Your task to perform on an android device: turn off javascript in the chrome app Image 0: 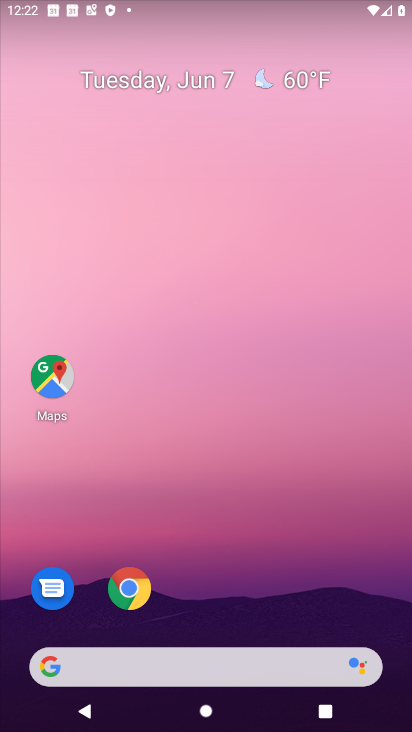
Step 0: click (138, 595)
Your task to perform on an android device: turn off javascript in the chrome app Image 1: 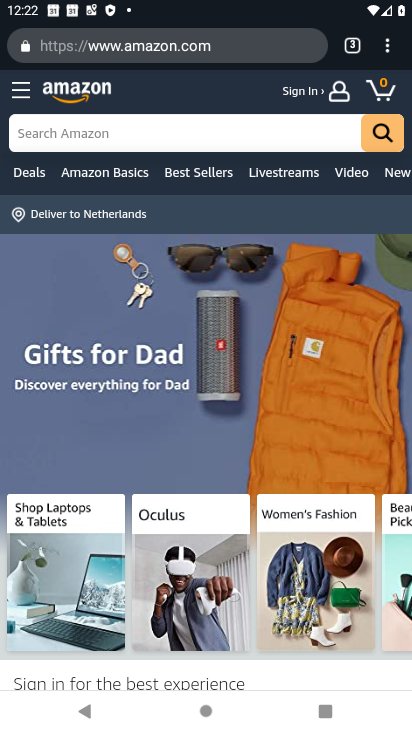
Step 1: click (383, 37)
Your task to perform on an android device: turn off javascript in the chrome app Image 2: 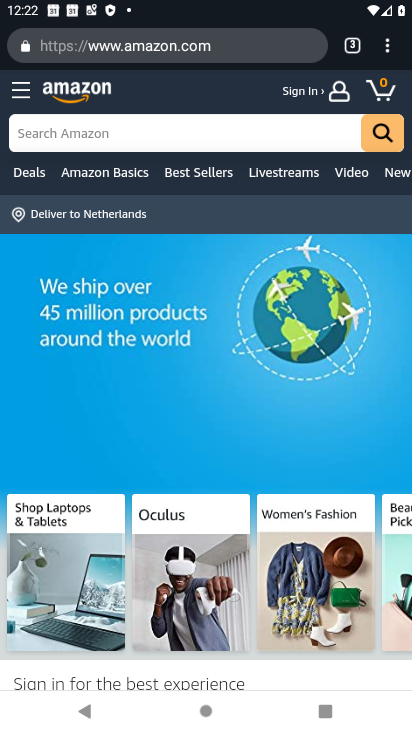
Step 2: click (386, 51)
Your task to perform on an android device: turn off javascript in the chrome app Image 3: 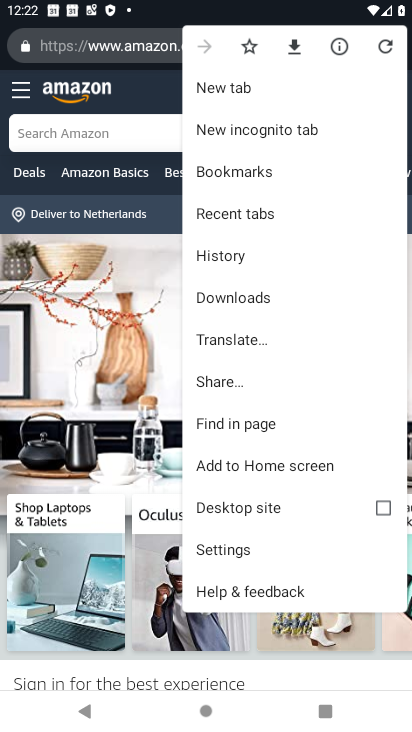
Step 3: click (265, 547)
Your task to perform on an android device: turn off javascript in the chrome app Image 4: 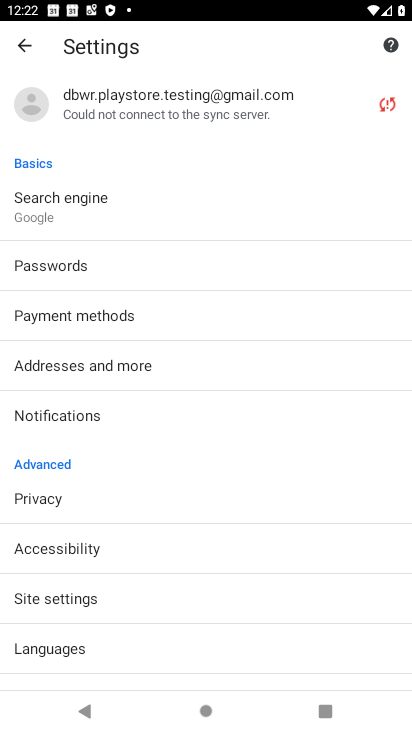
Step 4: click (67, 599)
Your task to perform on an android device: turn off javascript in the chrome app Image 5: 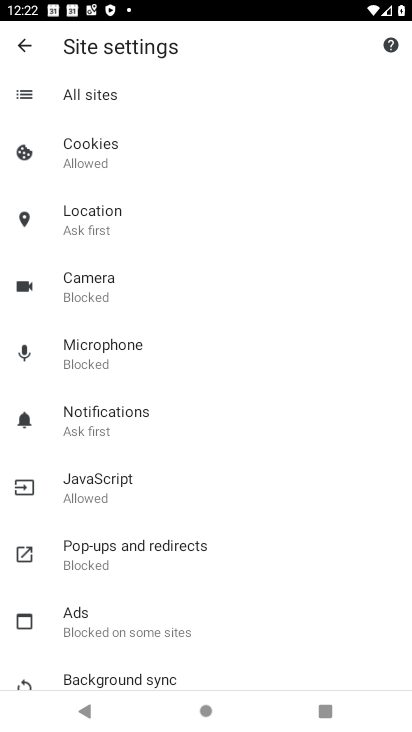
Step 5: click (105, 499)
Your task to perform on an android device: turn off javascript in the chrome app Image 6: 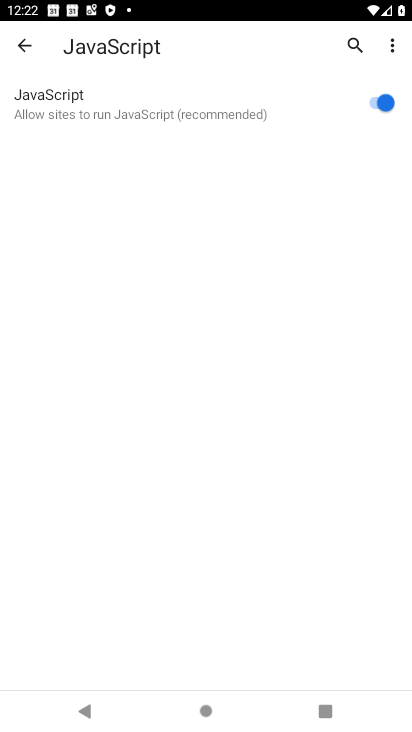
Step 6: click (391, 95)
Your task to perform on an android device: turn off javascript in the chrome app Image 7: 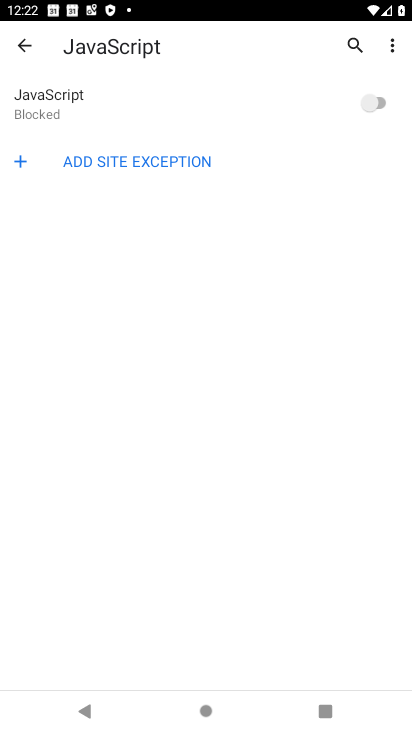
Step 7: task complete